Your task to perform on an android device: turn on sleep mode Image 0: 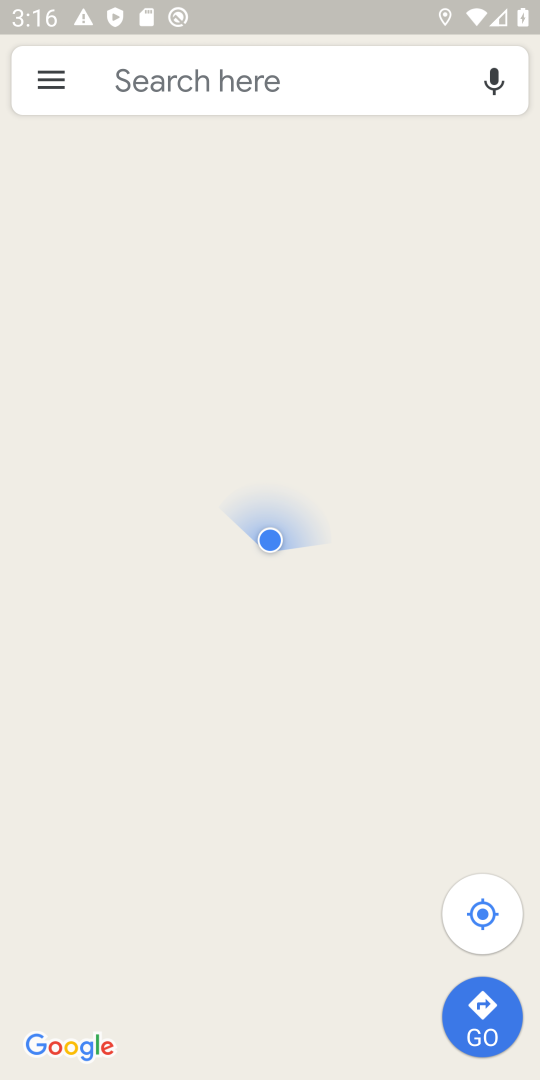
Step 0: drag from (257, 325) to (270, 871)
Your task to perform on an android device: turn on sleep mode Image 1: 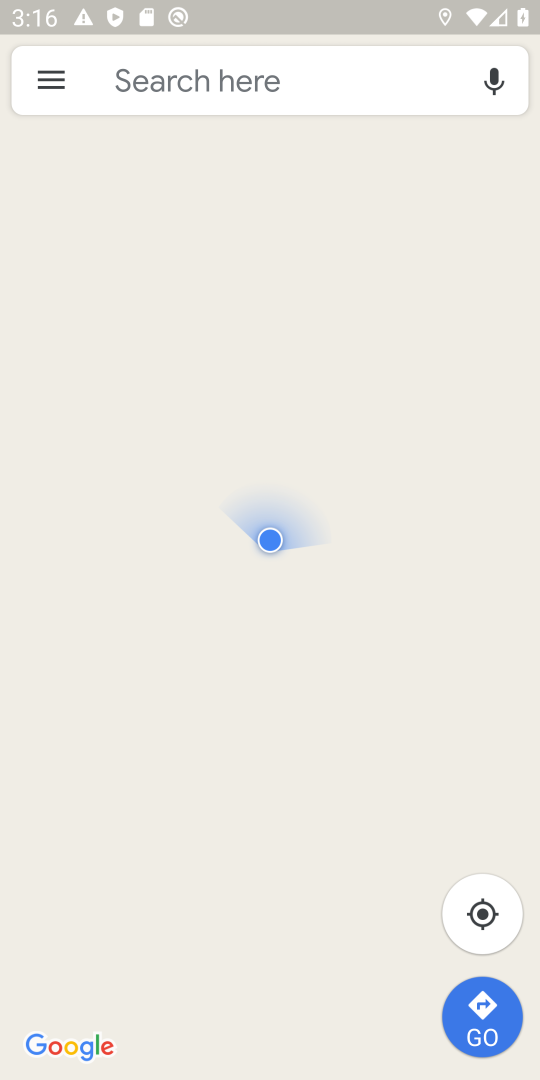
Step 1: drag from (249, 11) to (400, 682)
Your task to perform on an android device: turn on sleep mode Image 2: 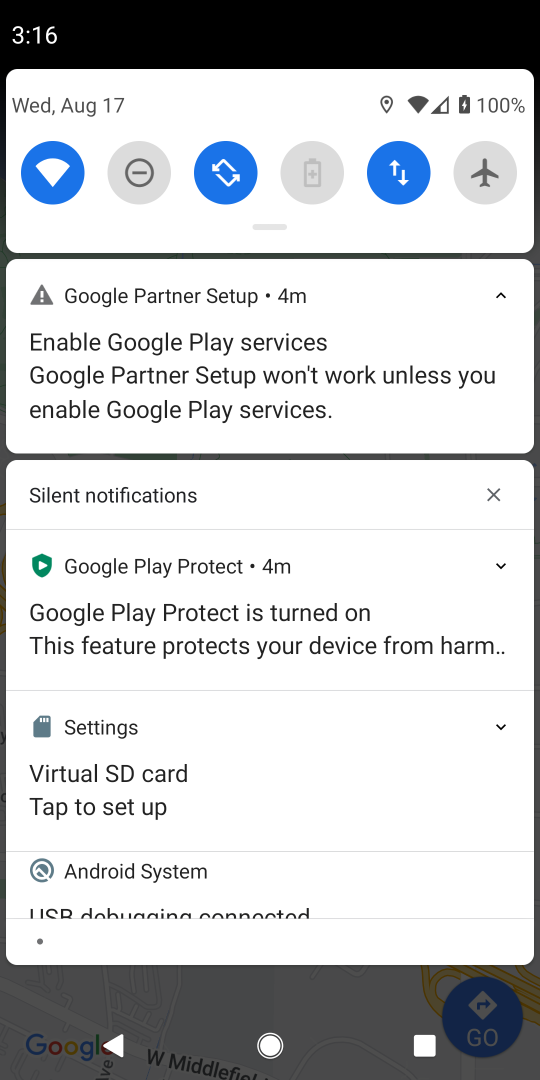
Step 2: drag from (270, 109) to (299, 867)
Your task to perform on an android device: turn on sleep mode Image 3: 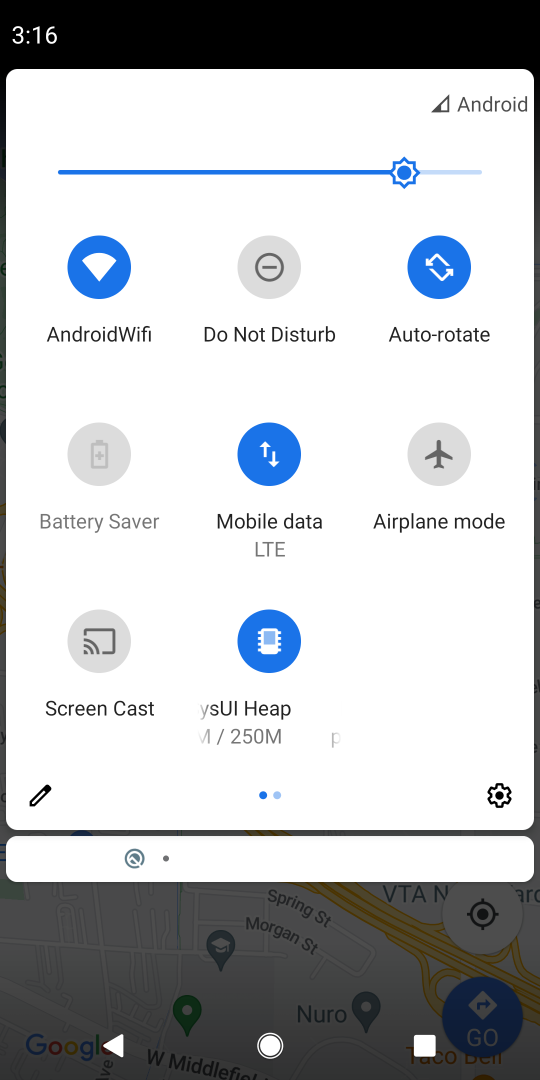
Step 3: click (502, 756)
Your task to perform on an android device: turn on sleep mode Image 4: 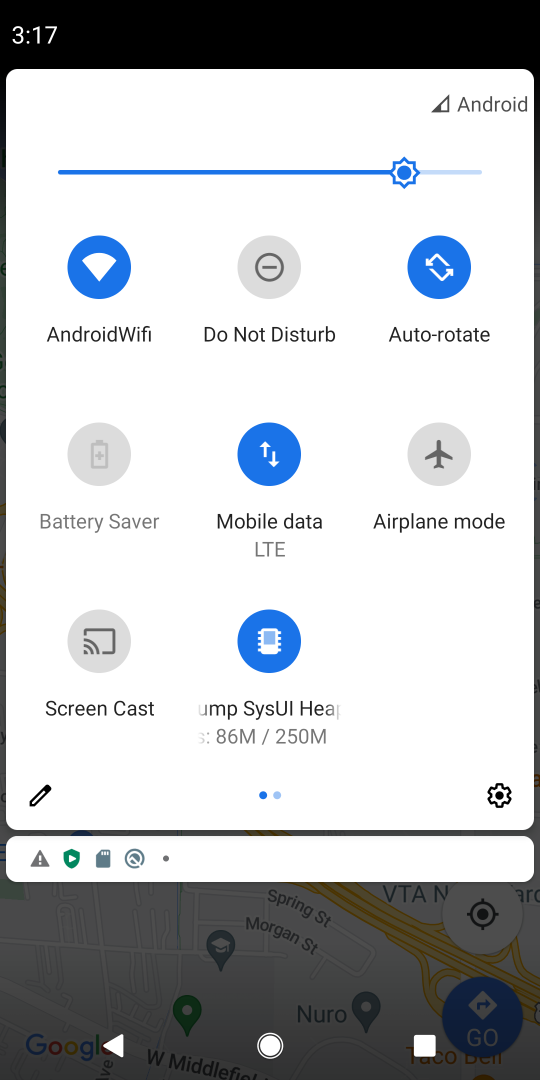
Step 4: click (512, 797)
Your task to perform on an android device: turn on sleep mode Image 5: 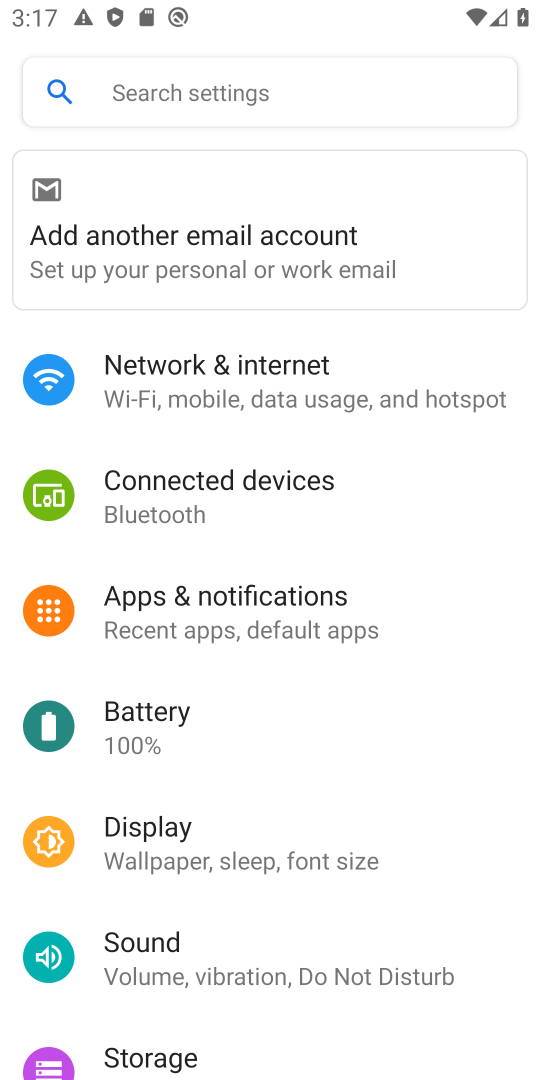
Step 5: task complete